Your task to perform on an android device: Open location settings Image 0: 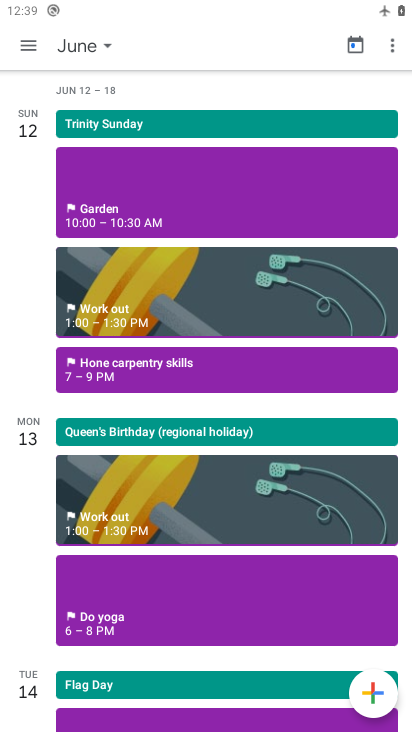
Step 0: press home button
Your task to perform on an android device: Open location settings Image 1: 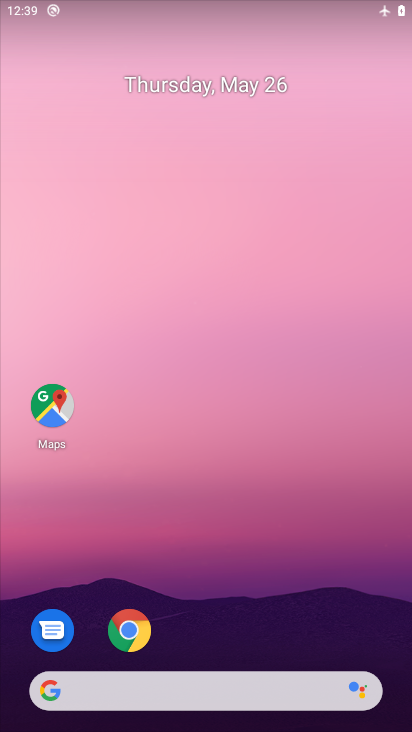
Step 1: drag from (207, 648) to (190, 24)
Your task to perform on an android device: Open location settings Image 2: 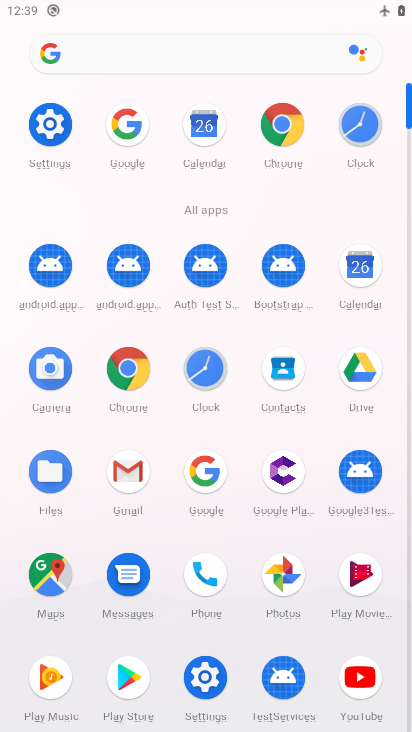
Step 2: click (52, 120)
Your task to perform on an android device: Open location settings Image 3: 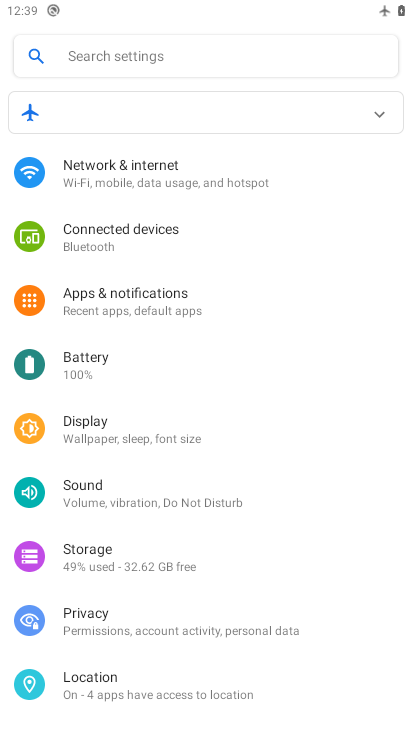
Step 3: click (140, 673)
Your task to perform on an android device: Open location settings Image 4: 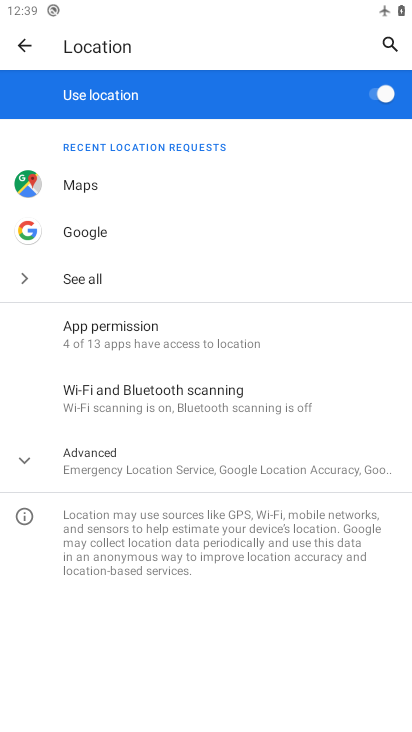
Step 4: click (19, 456)
Your task to perform on an android device: Open location settings Image 5: 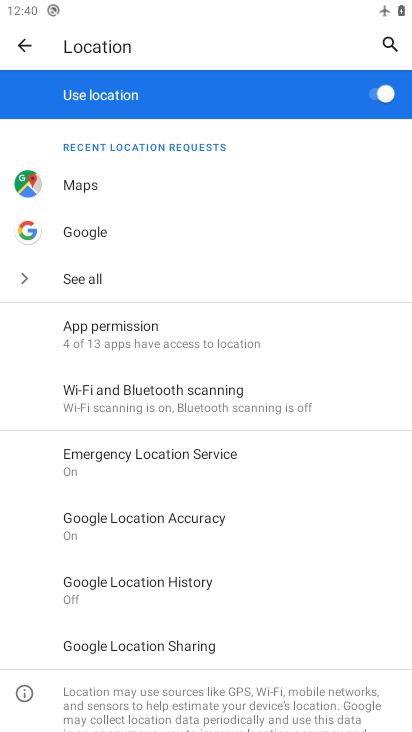
Step 5: task complete